Your task to perform on an android device: clear history in the chrome app Image 0: 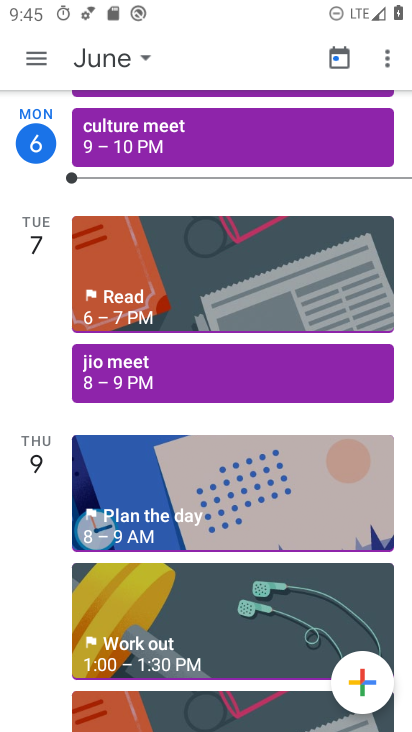
Step 0: press home button
Your task to perform on an android device: clear history in the chrome app Image 1: 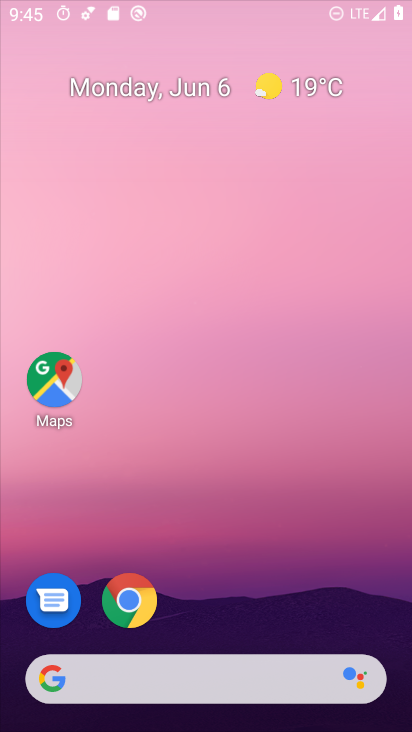
Step 1: drag from (265, 447) to (261, 9)
Your task to perform on an android device: clear history in the chrome app Image 2: 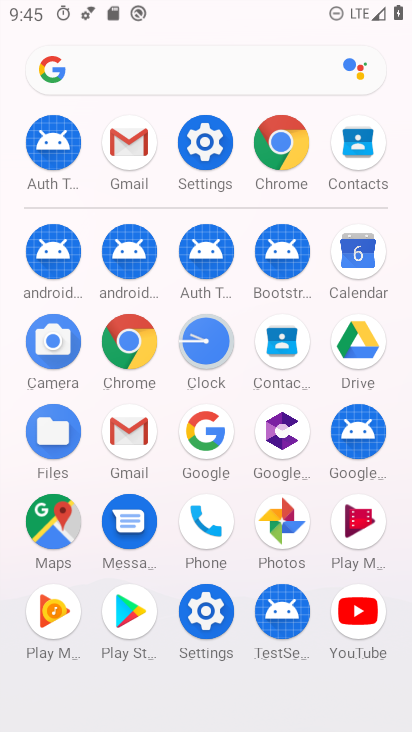
Step 2: click (282, 133)
Your task to perform on an android device: clear history in the chrome app Image 3: 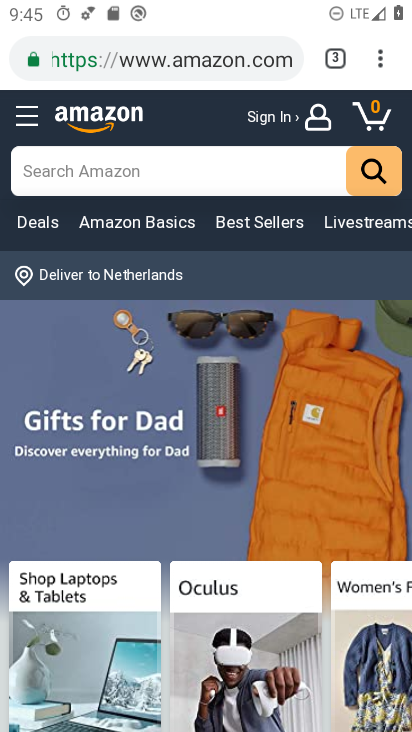
Step 3: click (380, 53)
Your task to perform on an android device: clear history in the chrome app Image 4: 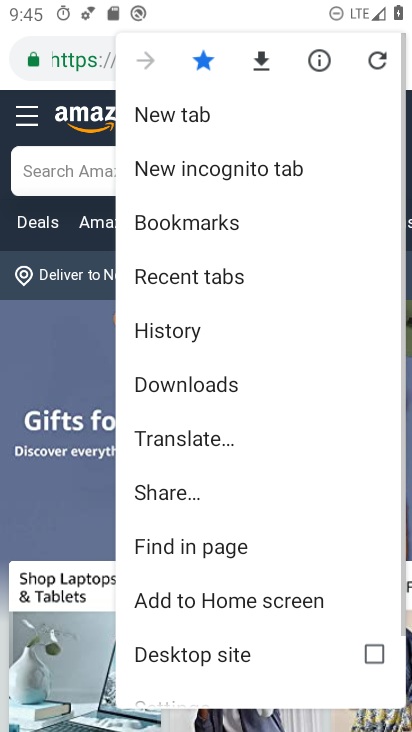
Step 4: click (204, 341)
Your task to perform on an android device: clear history in the chrome app Image 5: 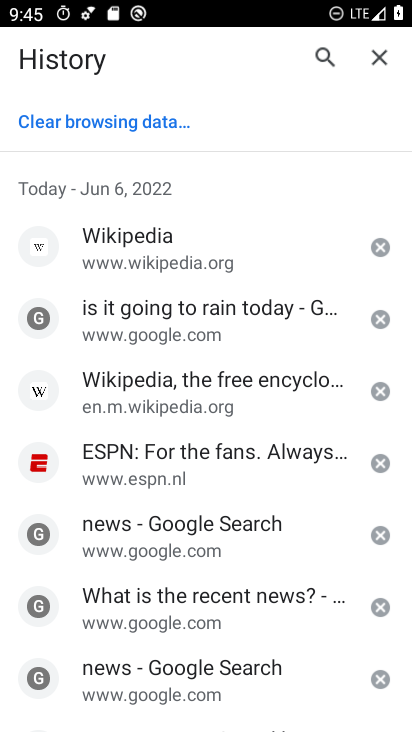
Step 5: click (92, 120)
Your task to perform on an android device: clear history in the chrome app Image 6: 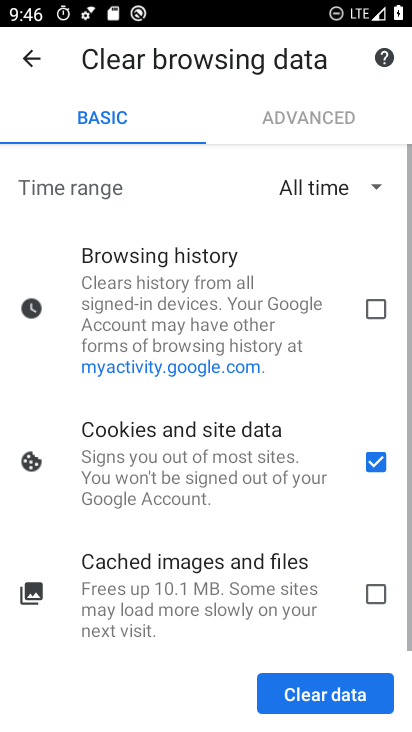
Step 6: click (349, 682)
Your task to perform on an android device: clear history in the chrome app Image 7: 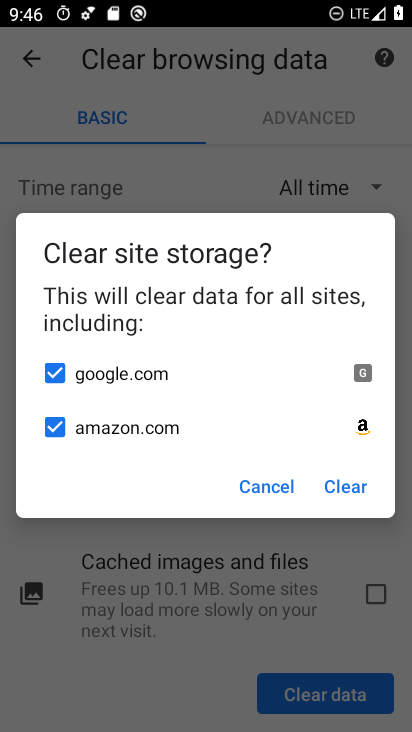
Step 7: click (350, 477)
Your task to perform on an android device: clear history in the chrome app Image 8: 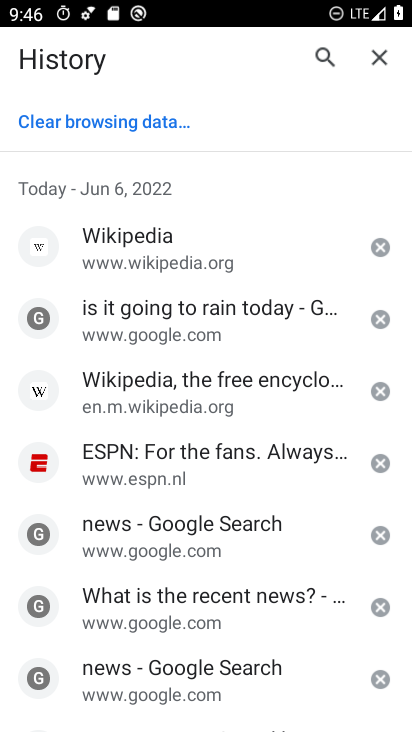
Step 8: task complete